Your task to perform on an android device: toggle sleep mode Image 0: 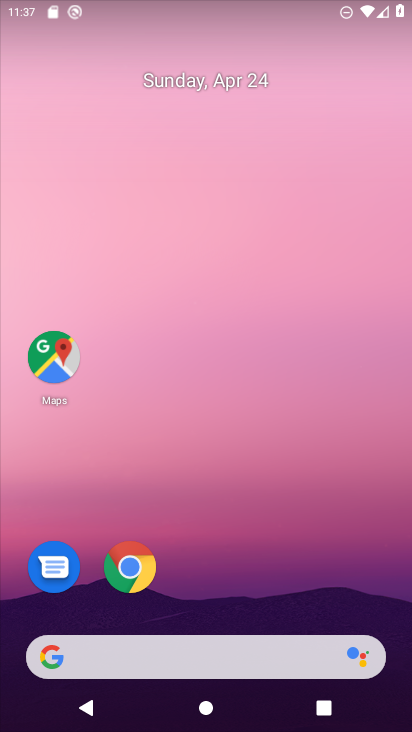
Step 0: drag from (308, 643) to (343, 69)
Your task to perform on an android device: toggle sleep mode Image 1: 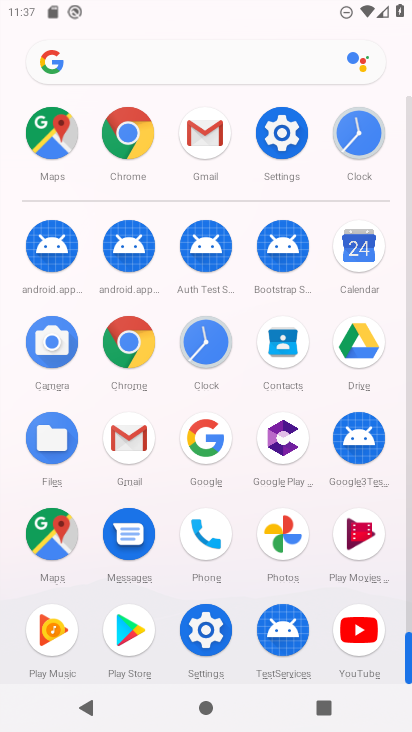
Step 1: click (194, 635)
Your task to perform on an android device: toggle sleep mode Image 2: 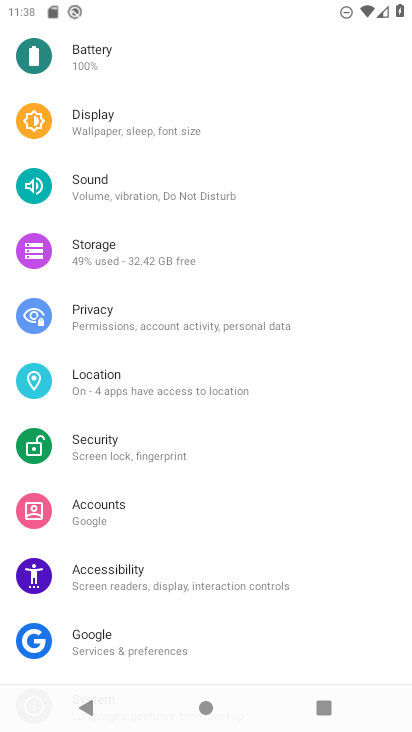
Step 2: task complete